Your task to perform on an android device: Open CNN.com Image 0: 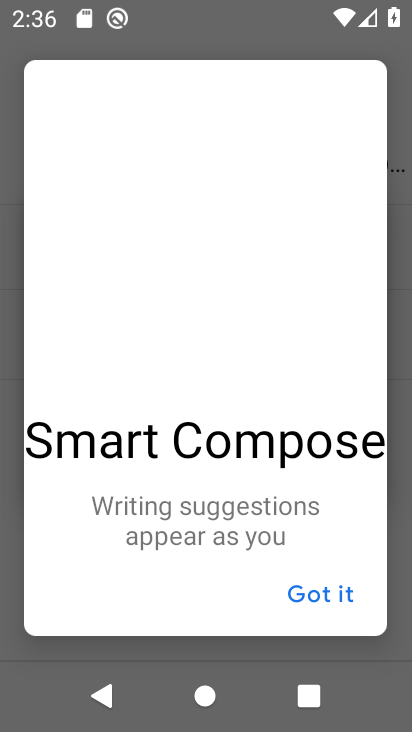
Step 0: press home button
Your task to perform on an android device: Open CNN.com Image 1: 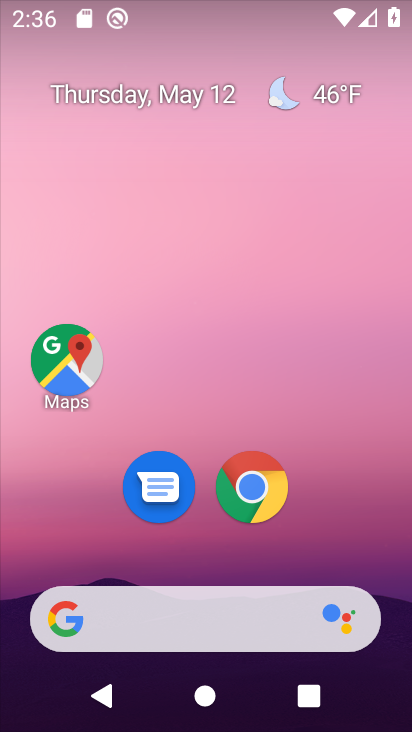
Step 1: click (248, 476)
Your task to perform on an android device: Open CNN.com Image 2: 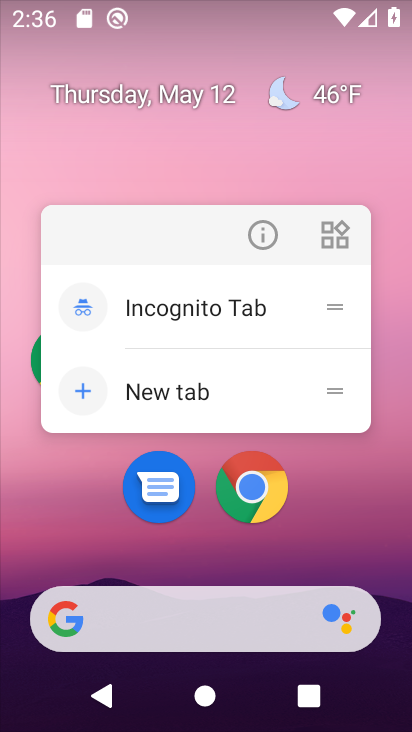
Step 2: click (248, 476)
Your task to perform on an android device: Open CNN.com Image 3: 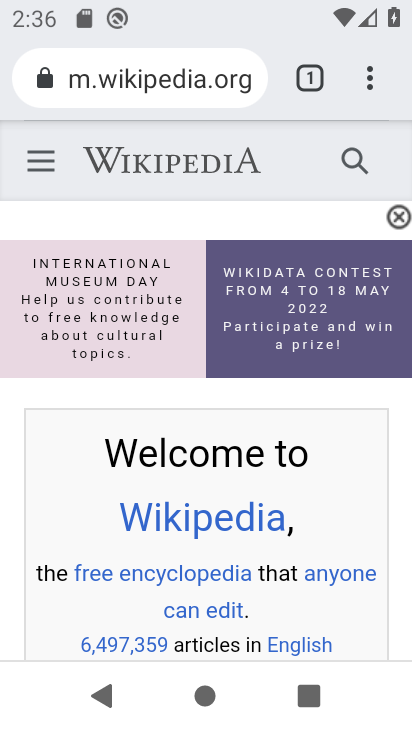
Step 3: click (168, 79)
Your task to perform on an android device: Open CNN.com Image 4: 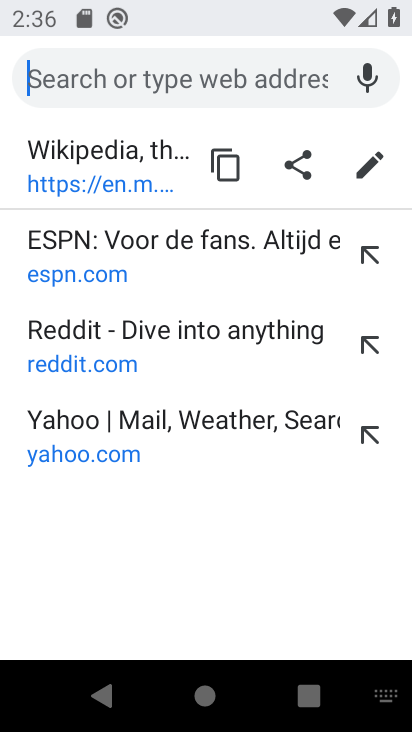
Step 4: type "CnN.com"
Your task to perform on an android device: Open CNN.com Image 5: 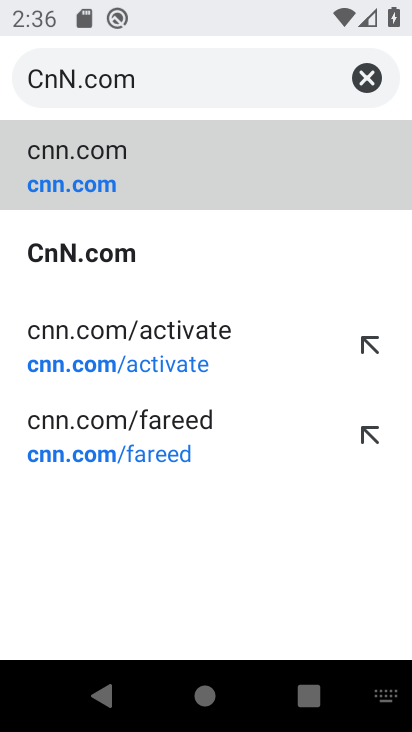
Step 5: click (113, 170)
Your task to perform on an android device: Open CNN.com Image 6: 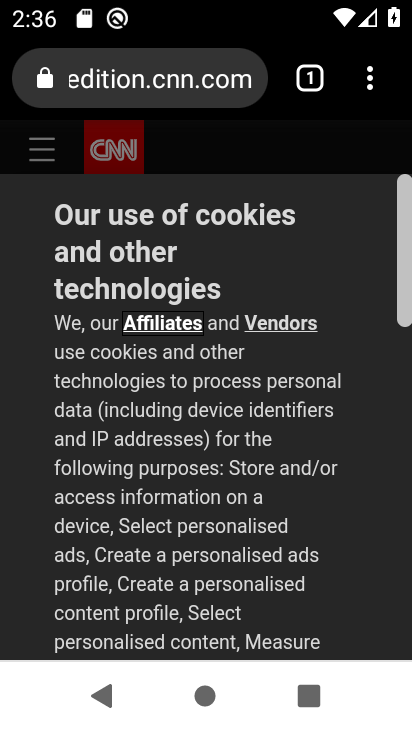
Step 6: task complete